Your task to perform on an android device: delete the emails in spam in the gmail app Image 0: 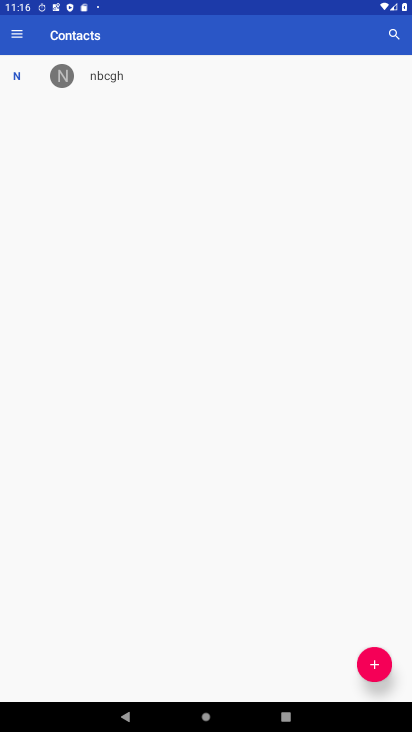
Step 0: press home button
Your task to perform on an android device: delete the emails in spam in the gmail app Image 1: 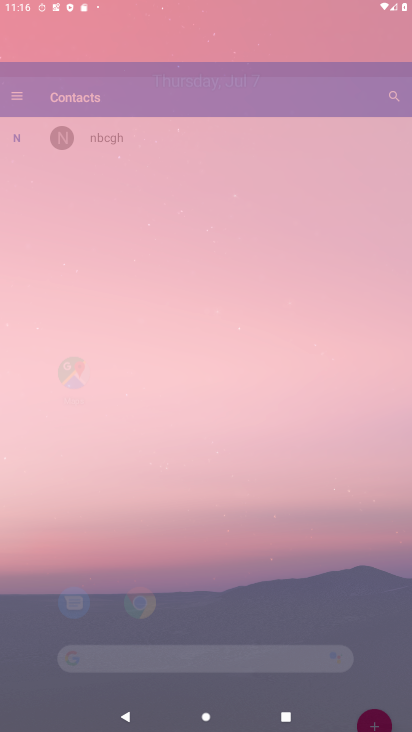
Step 1: drag from (218, 657) to (225, 1)
Your task to perform on an android device: delete the emails in spam in the gmail app Image 2: 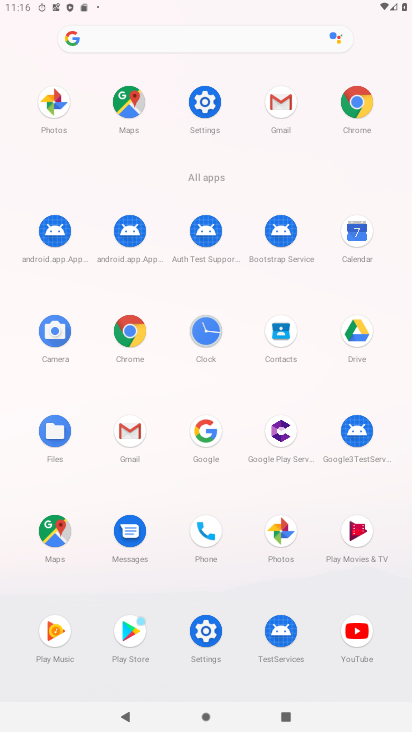
Step 2: click (288, 92)
Your task to perform on an android device: delete the emails in spam in the gmail app Image 3: 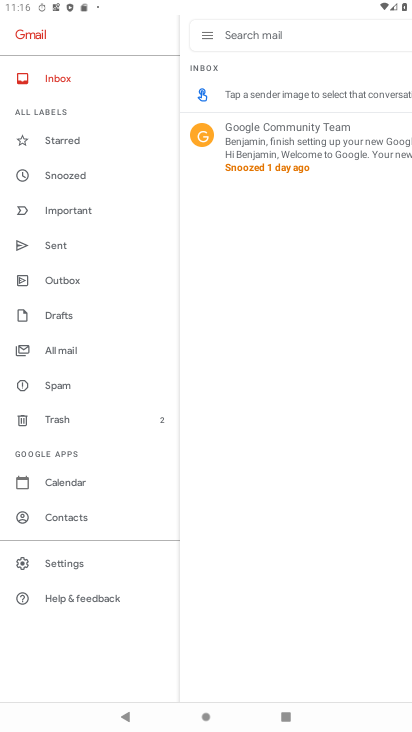
Step 3: click (259, 173)
Your task to perform on an android device: delete the emails in spam in the gmail app Image 4: 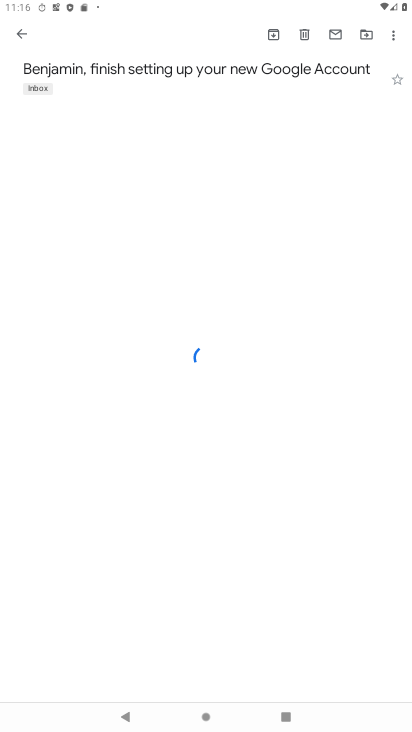
Step 4: click (23, 29)
Your task to perform on an android device: delete the emails in spam in the gmail app Image 5: 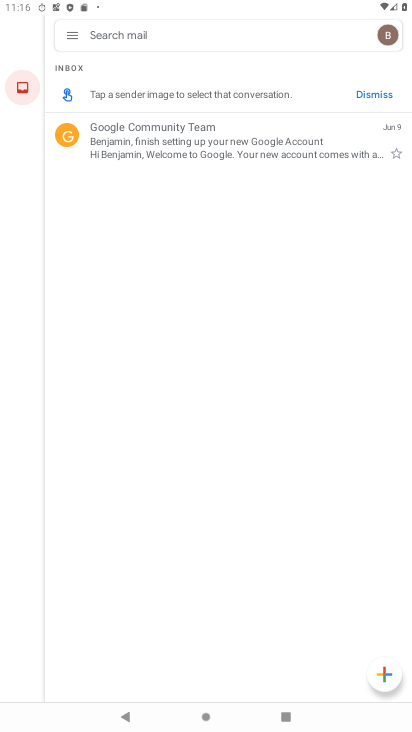
Step 5: click (72, 131)
Your task to perform on an android device: delete the emails in spam in the gmail app Image 6: 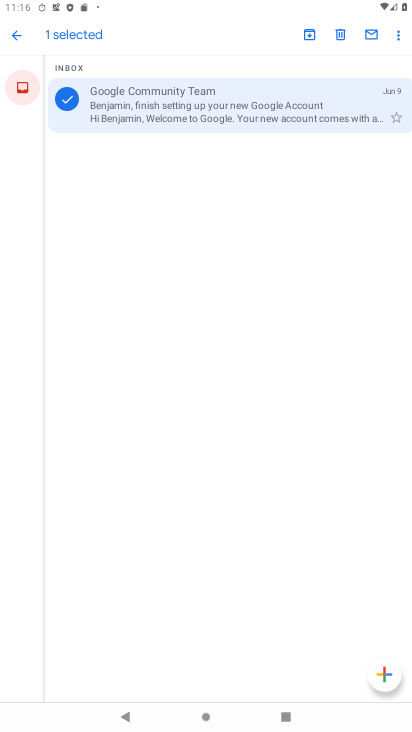
Step 6: click (340, 27)
Your task to perform on an android device: delete the emails in spam in the gmail app Image 7: 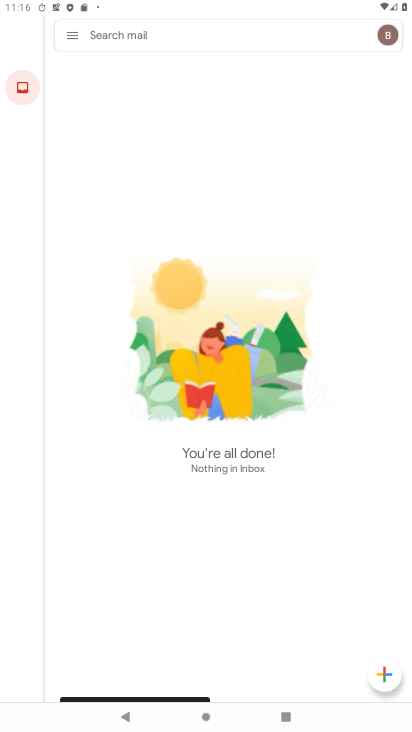
Step 7: task complete